Your task to perform on an android device: turn off notifications settings in the gmail app Image 0: 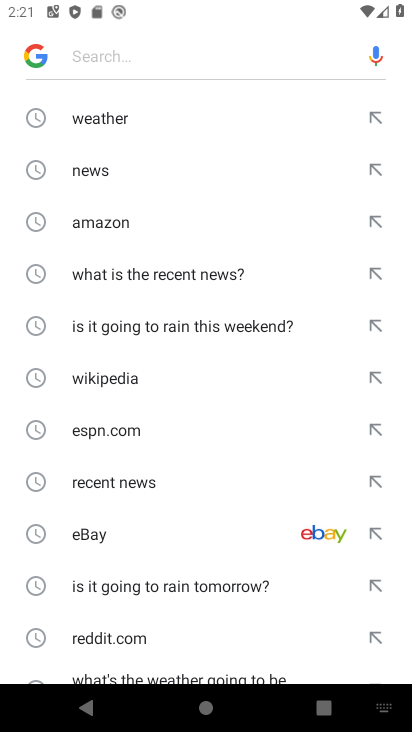
Step 0: press home button
Your task to perform on an android device: turn off notifications settings in the gmail app Image 1: 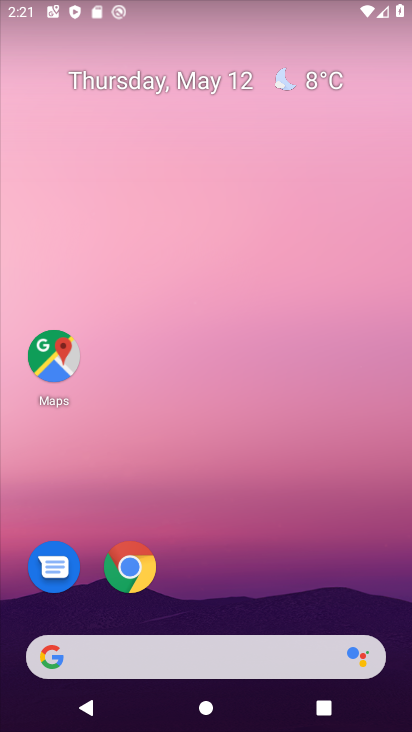
Step 1: drag from (206, 581) to (252, 171)
Your task to perform on an android device: turn off notifications settings in the gmail app Image 2: 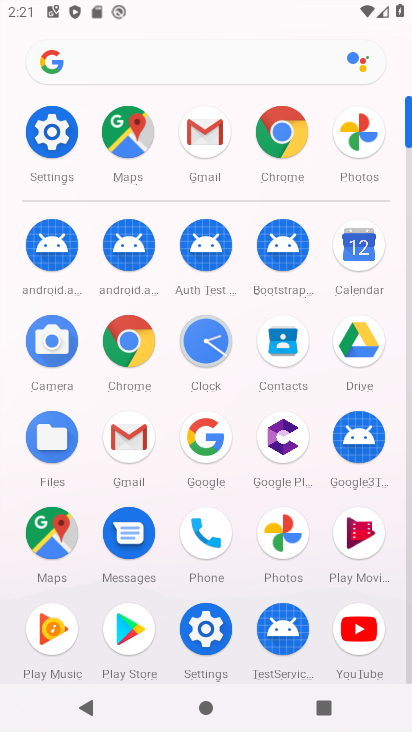
Step 2: click (202, 135)
Your task to perform on an android device: turn off notifications settings in the gmail app Image 3: 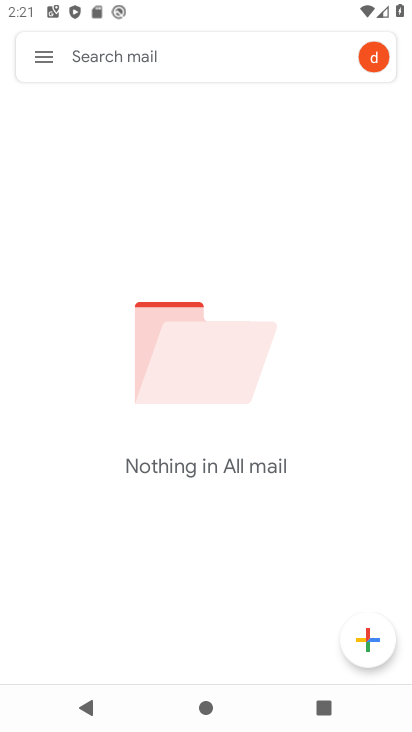
Step 3: click (42, 54)
Your task to perform on an android device: turn off notifications settings in the gmail app Image 4: 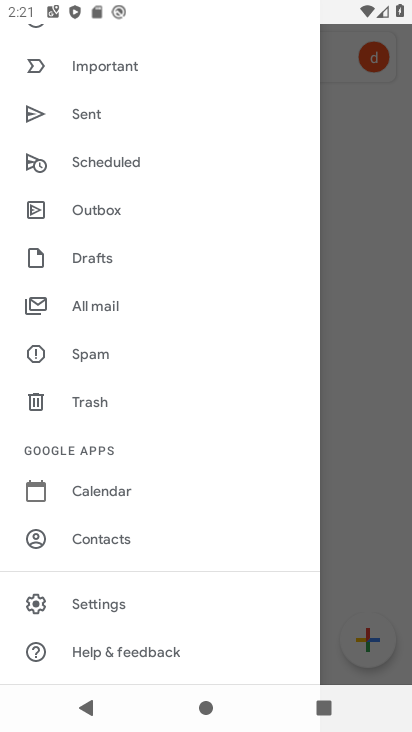
Step 4: click (142, 599)
Your task to perform on an android device: turn off notifications settings in the gmail app Image 5: 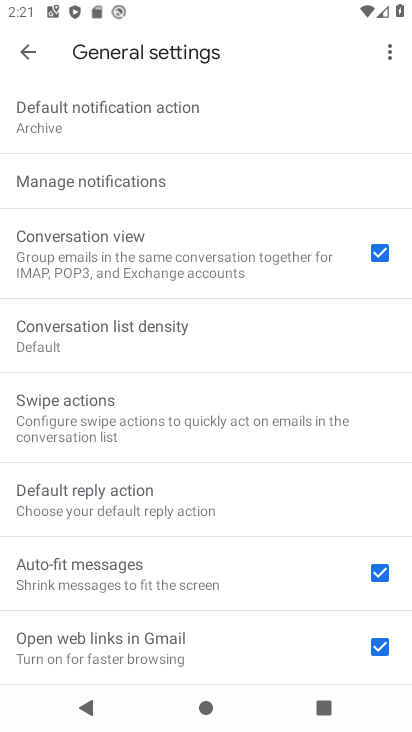
Step 5: click (135, 177)
Your task to perform on an android device: turn off notifications settings in the gmail app Image 6: 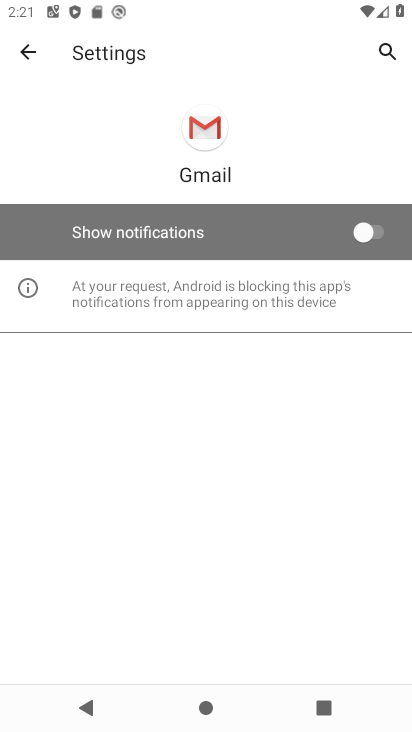
Step 6: task complete